Your task to perform on an android device: View the shopping cart on costco. Add "macbook pro" to the cart on costco, then select checkout. Image 0: 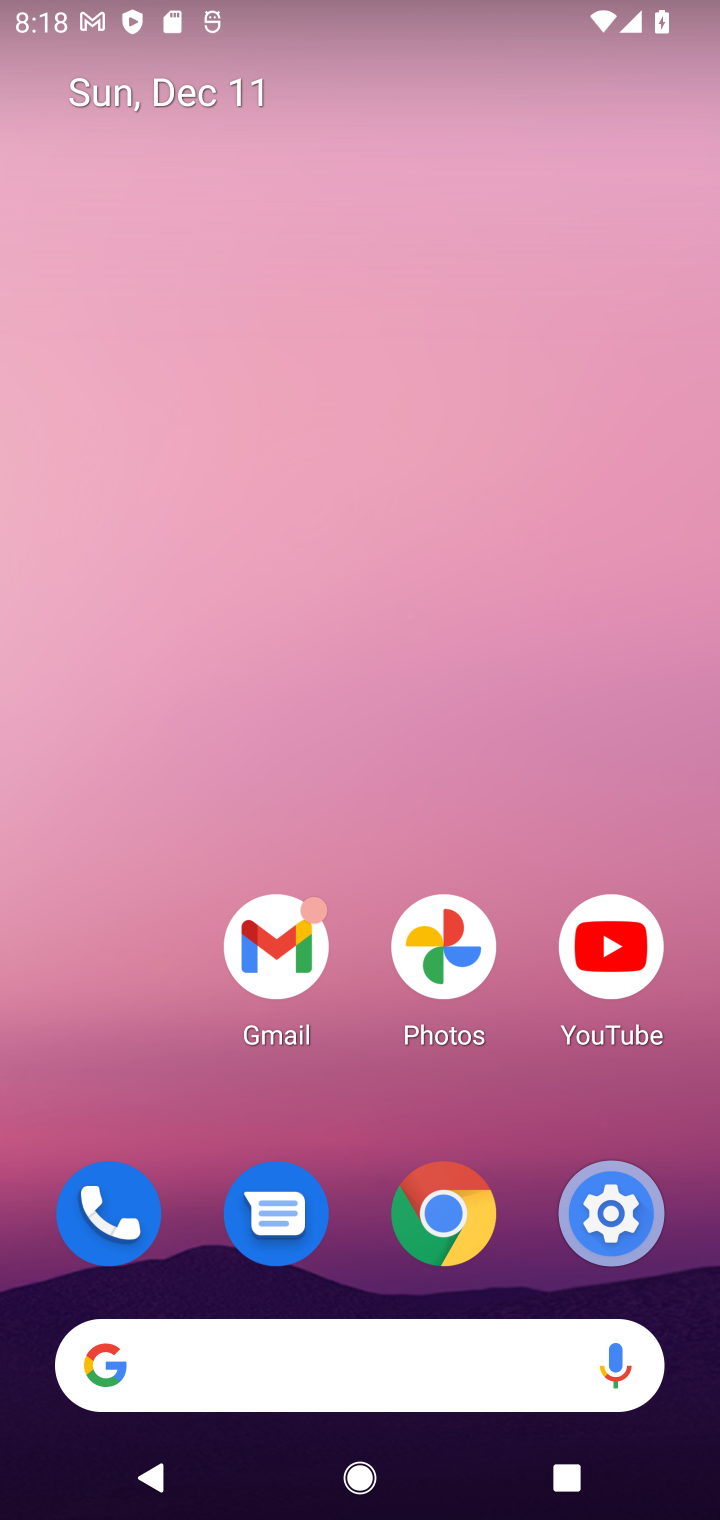
Step 0: click (400, 1338)
Your task to perform on an android device: View the shopping cart on costco. Add "macbook pro" to the cart on costco, then select checkout. Image 1: 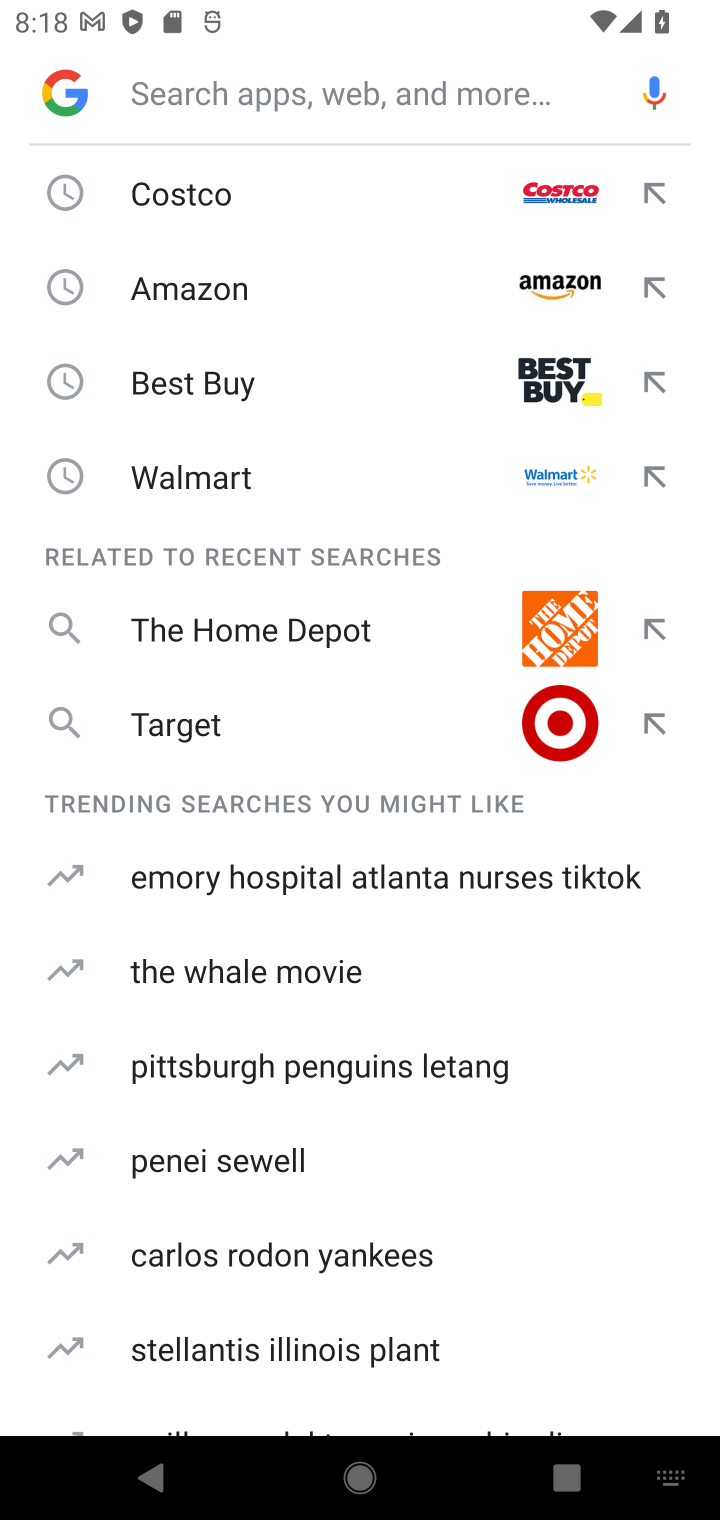
Step 1: click (245, 186)
Your task to perform on an android device: View the shopping cart on costco. Add "macbook pro" to the cart on costco, then select checkout. Image 2: 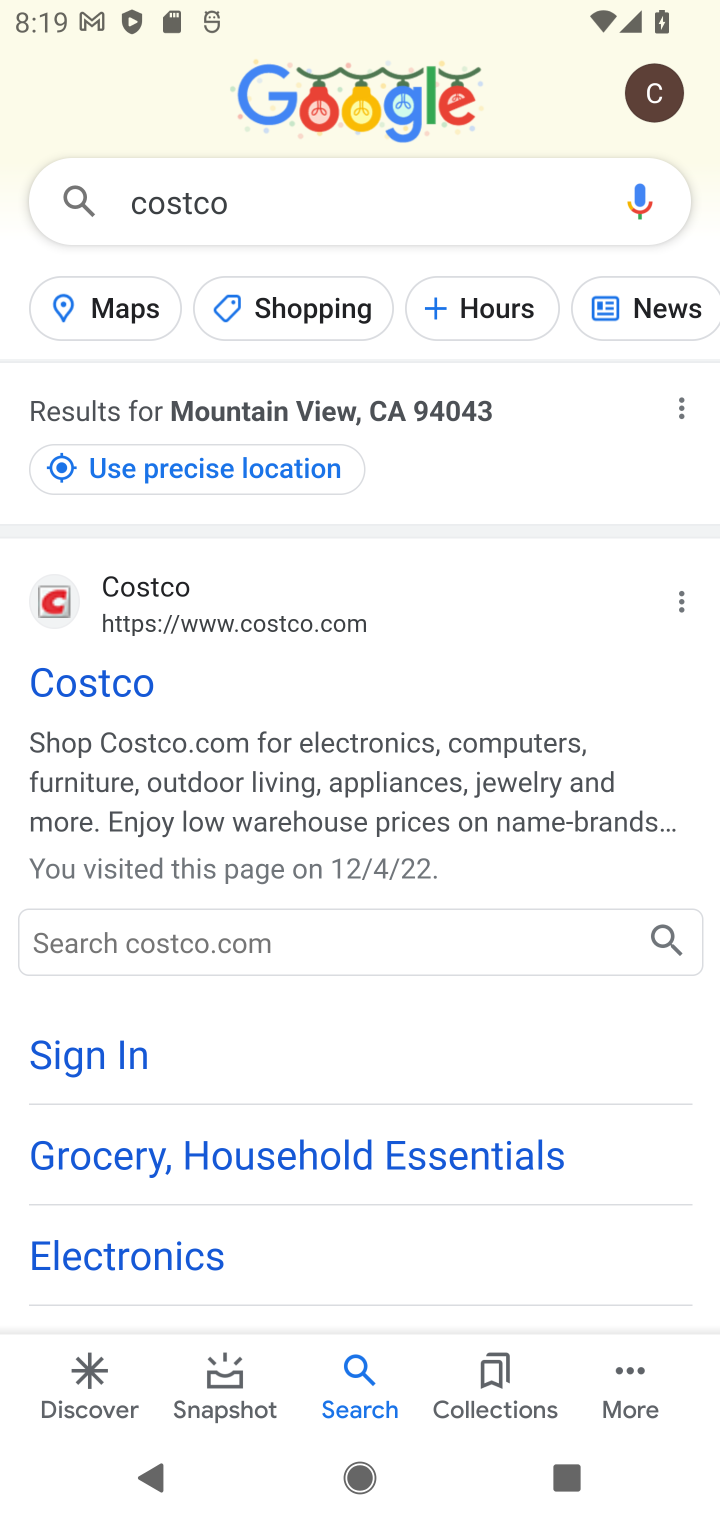
Step 2: click (133, 700)
Your task to perform on an android device: View the shopping cart on costco. Add "macbook pro" to the cart on costco, then select checkout. Image 3: 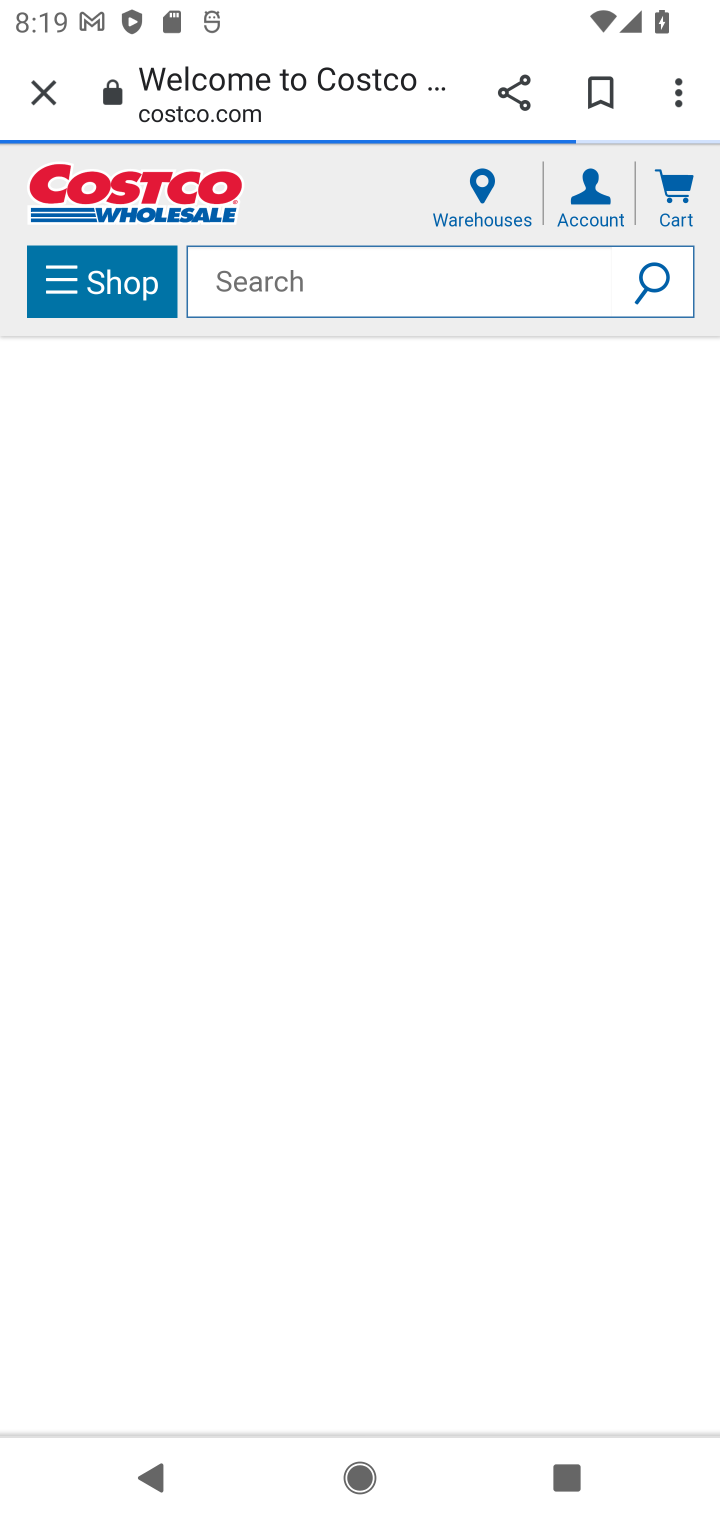
Step 3: click (304, 267)
Your task to perform on an android device: View the shopping cart on costco. Add "macbook pro" to the cart on costco, then select checkout. Image 4: 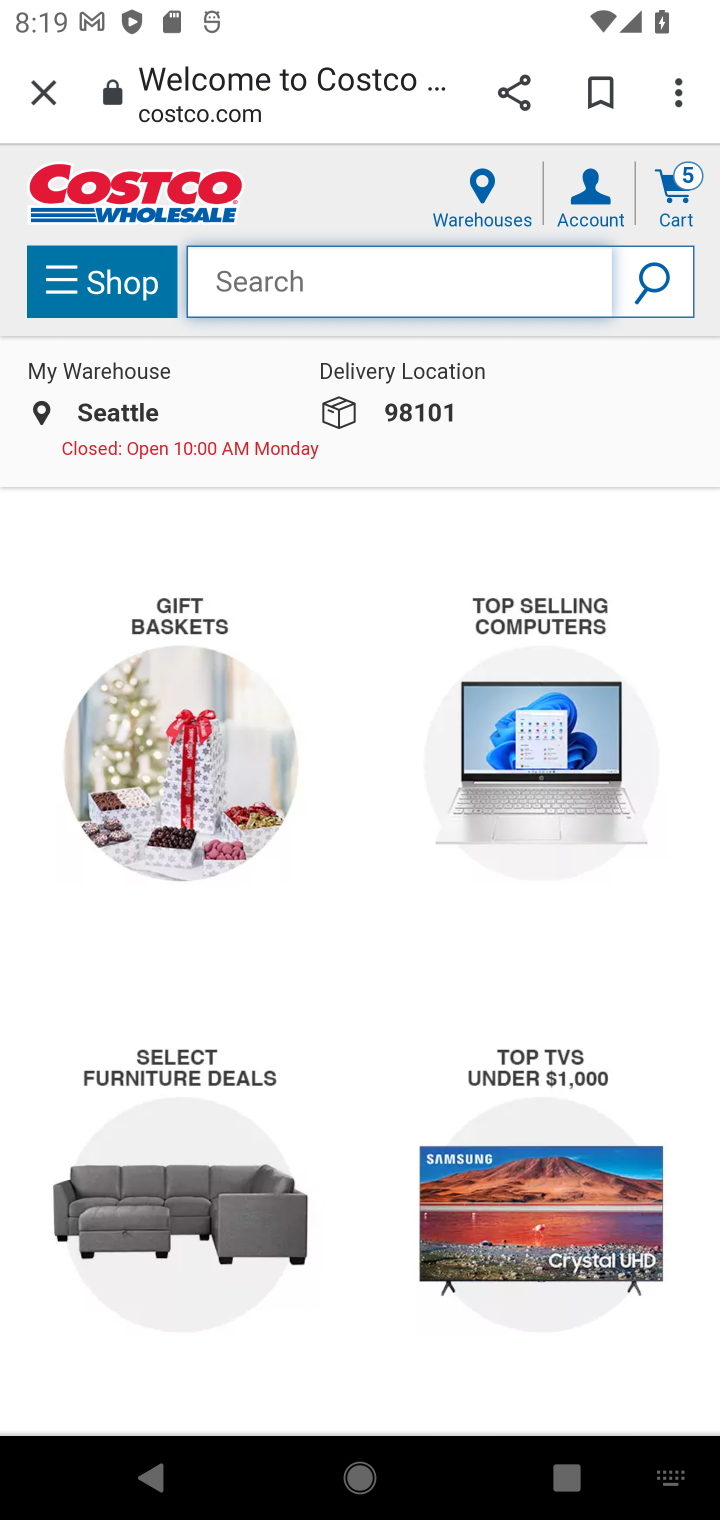
Step 4: type "macbook pro"
Your task to perform on an android device: View the shopping cart on costco. Add "macbook pro" to the cart on costco, then select checkout. Image 5: 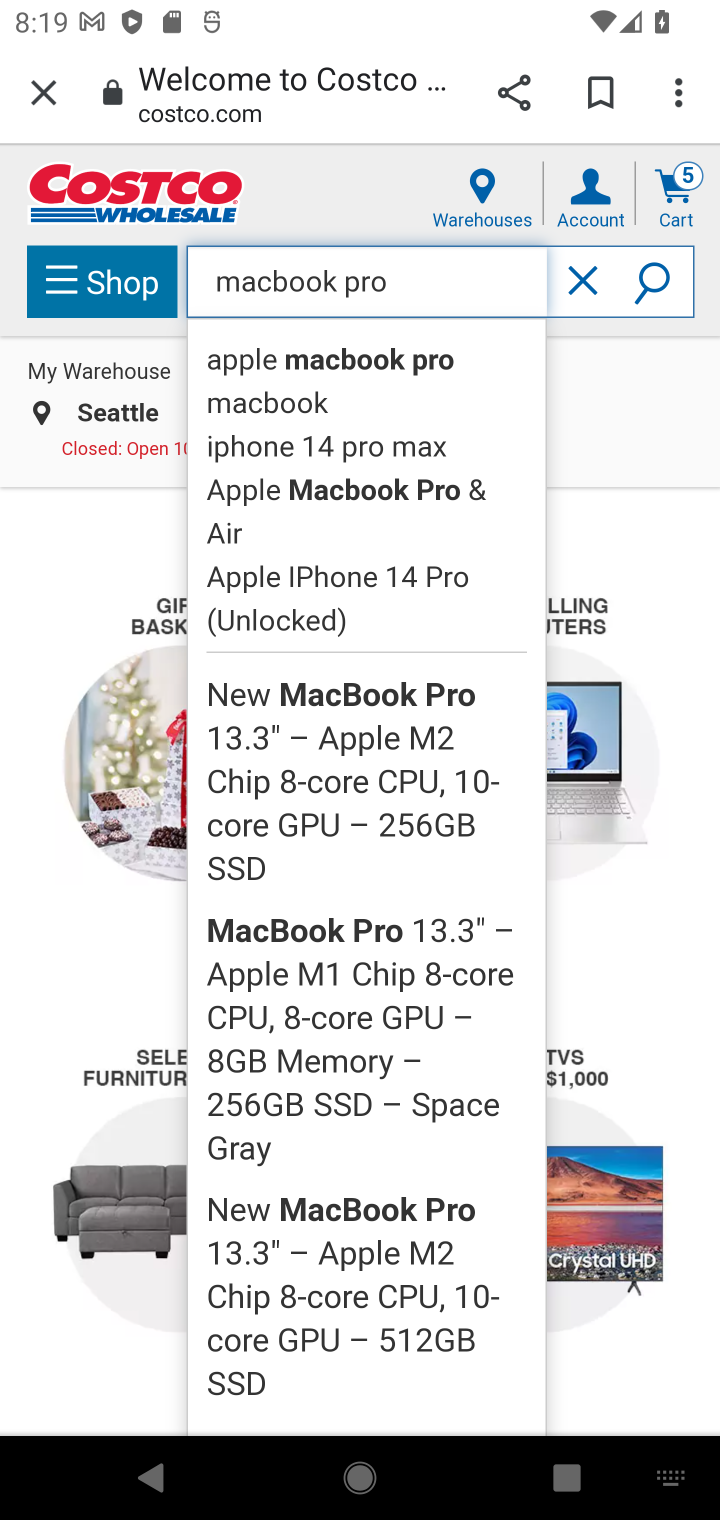
Step 5: click (423, 351)
Your task to perform on an android device: View the shopping cart on costco. Add "macbook pro" to the cart on costco, then select checkout. Image 6: 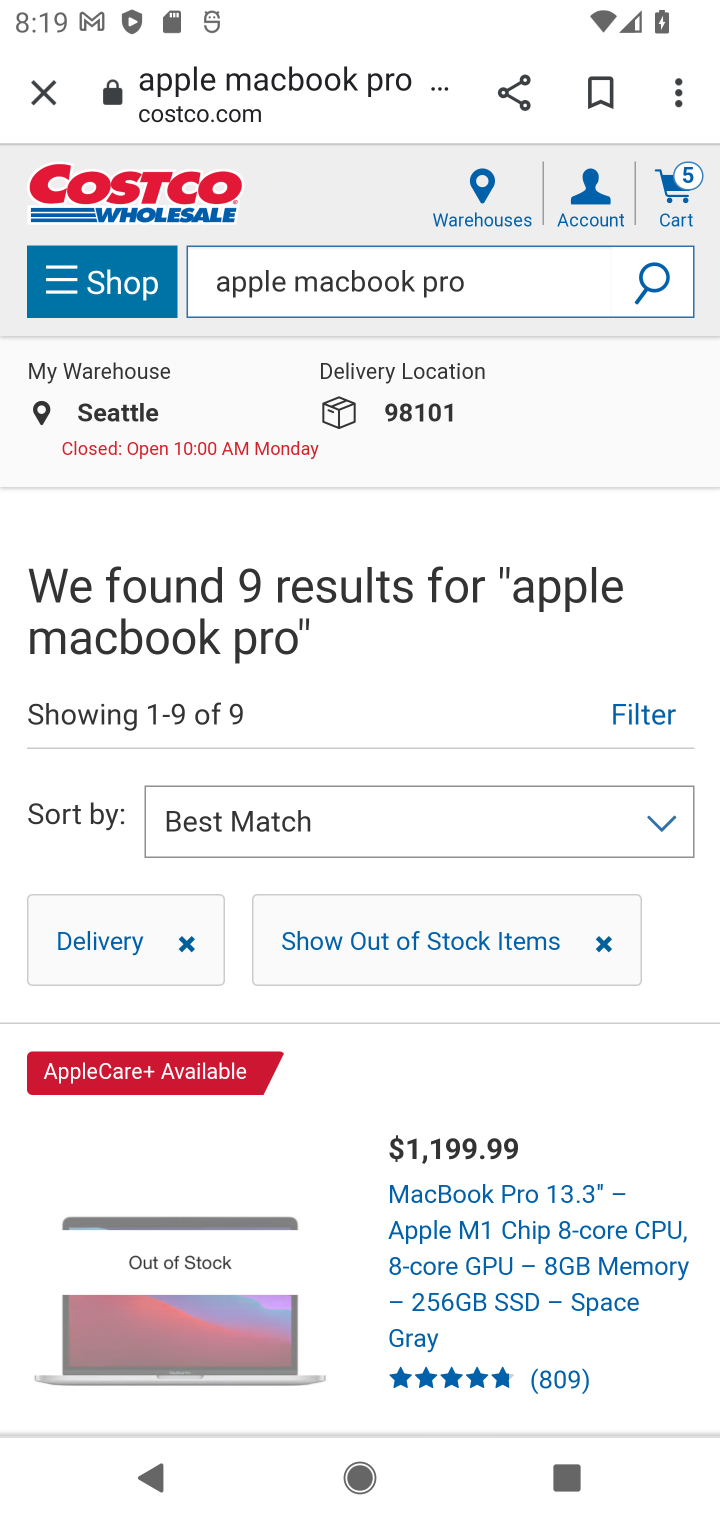
Step 6: drag from (654, 1397) to (535, 604)
Your task to perform on an android device: View the shopping cart on costco. Add "macbook pro" to the cart on costco, then select checkout. Image 7: 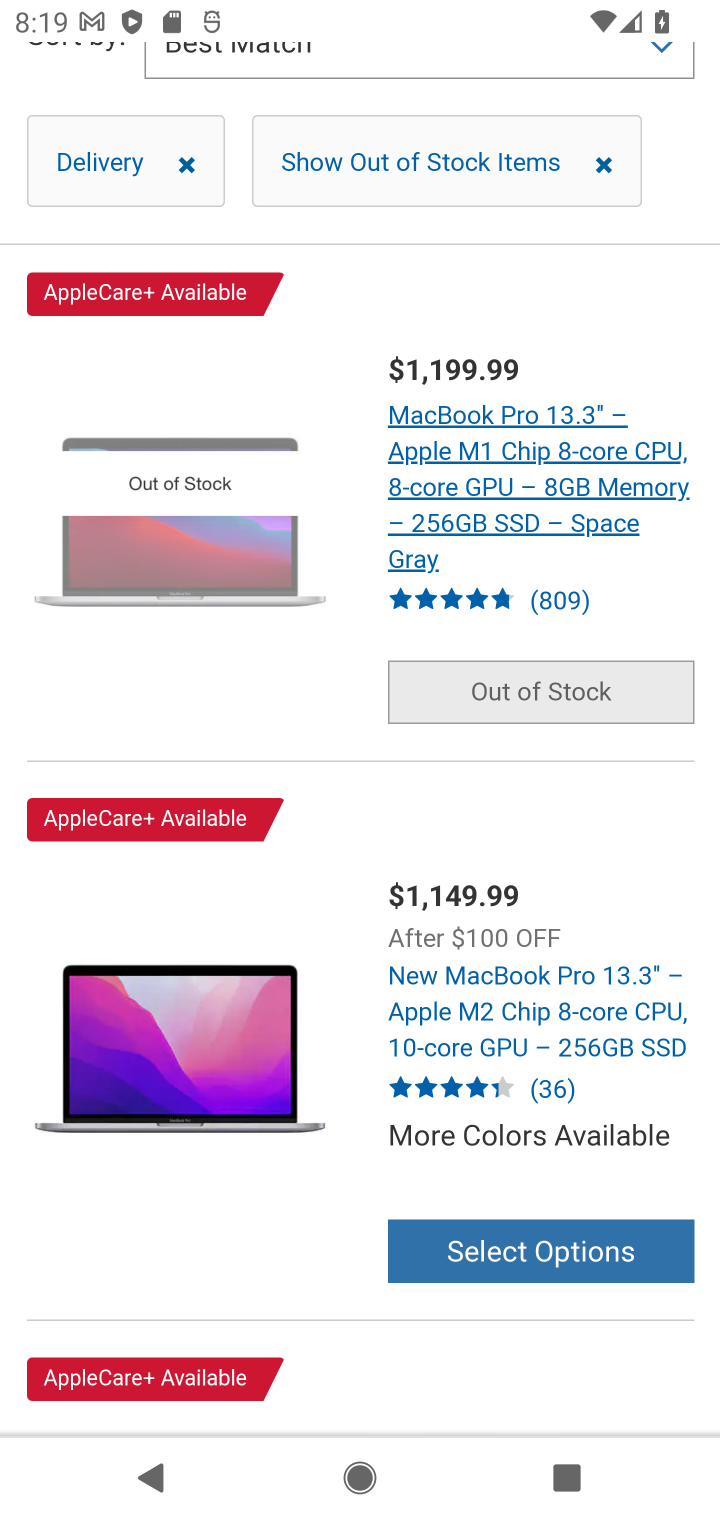
Step 7: click (500, 454)
Your task to perform on an android device: View the shopping cart on costco. Add "macbook pro" to the cart on costco, then select checkout. Image 8: 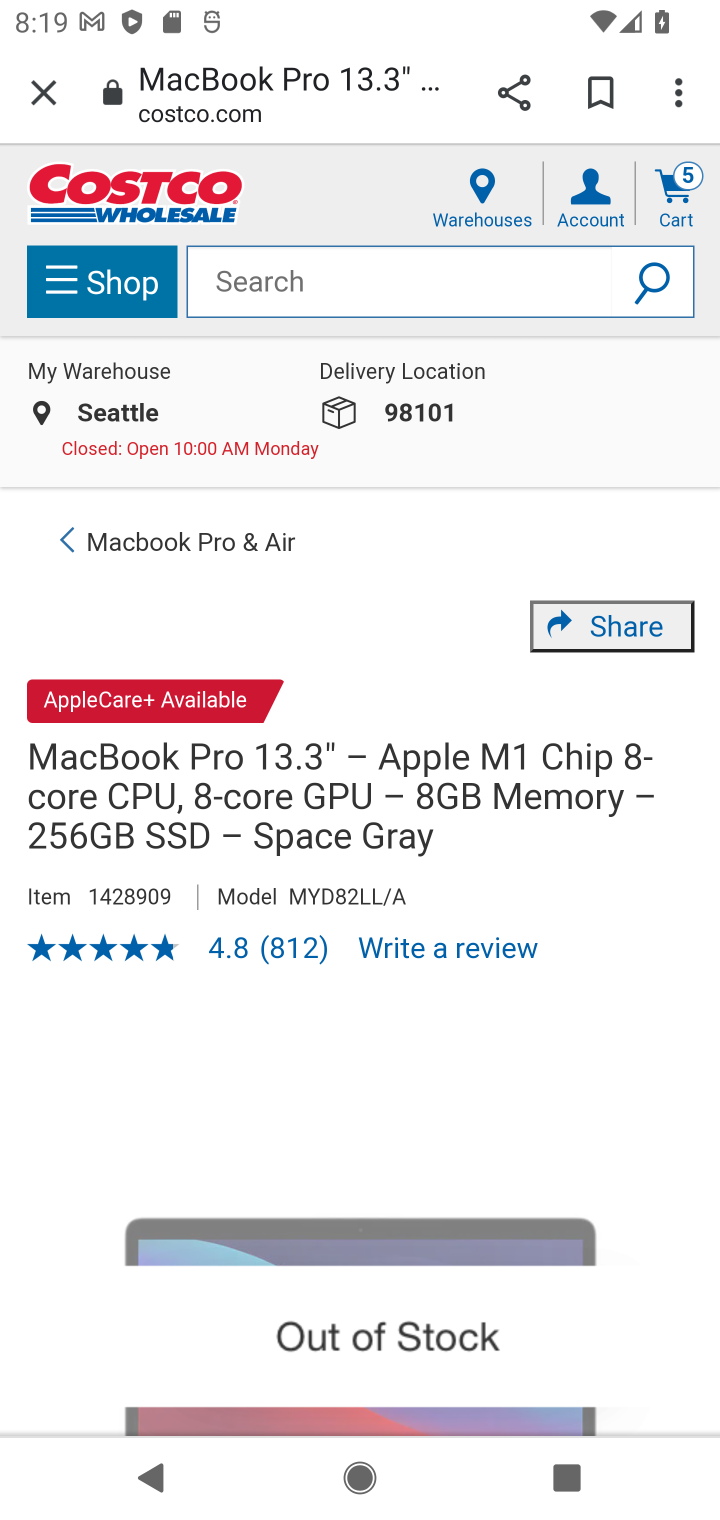
Step 8: task complete